Your task to perform on an android device: Open Amazon Image 0: 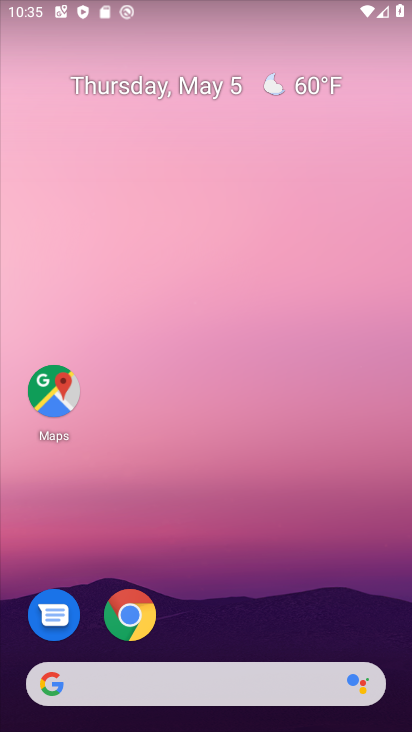
Step 0: click (129, 613)
Your task to perform on an android device: Open Amazon Image 1: 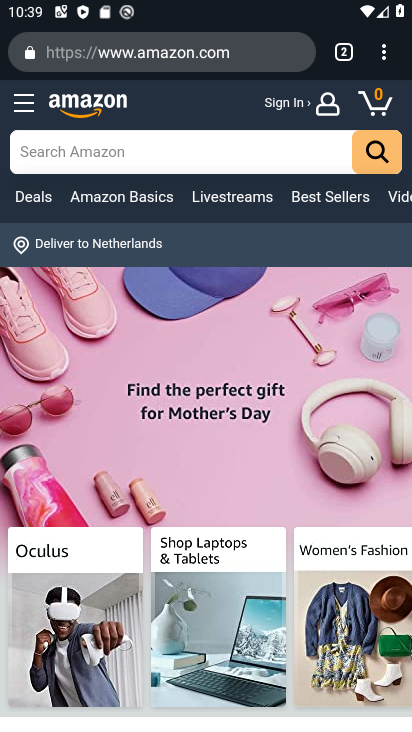
Step 1: task complete